Your task to perform on an android device: What's the weather going to be this weekend? Image 0: 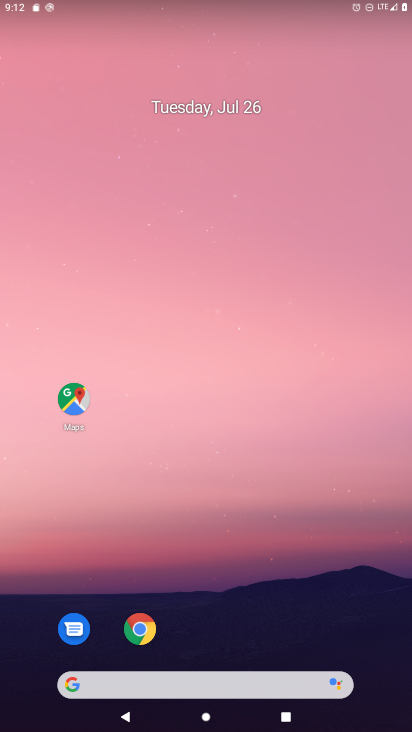
Step 0: click (199, 683)
Your task to perform on an android device: What's the weather going to be this weekend? Image 1: 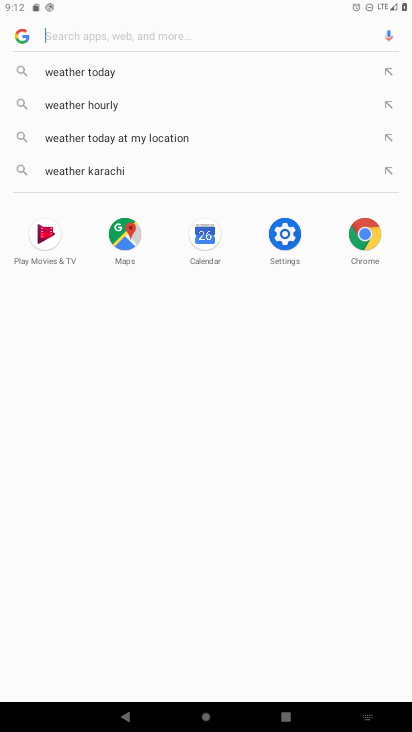
Step 1: click (105, 77)
Your task to perform on an android device: What's the weather going to be this weekend? Image 2: 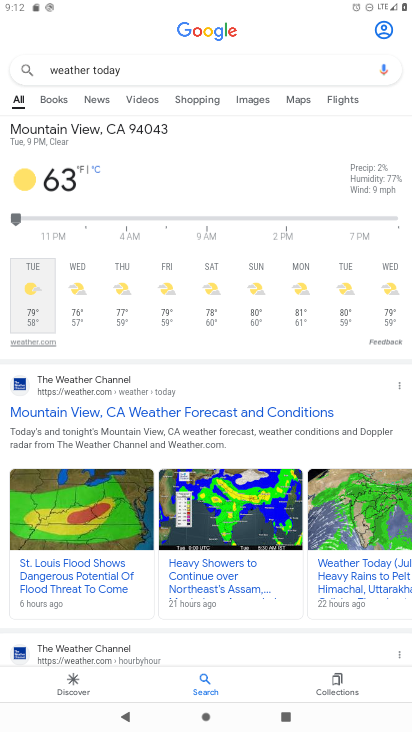
Step 2: task complete